Your task to perform on an android device: Open Youtube and go to the subscriptions tab Image 0: 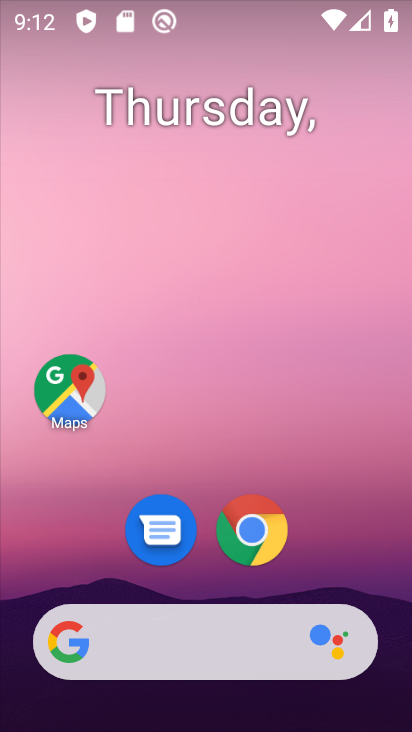
Step 0: drag from (344, 483) to (276, 17)
Your task to perform on an android device: Open Youtube and go to the subscriptions tab Image 1: 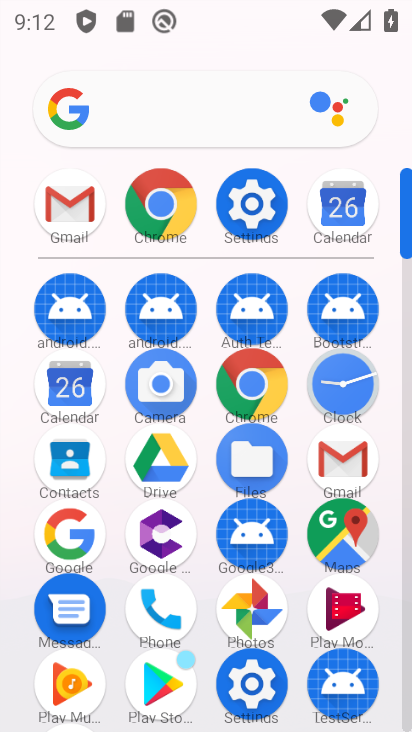
Step 1: drag from (3, 627) to (31, 279)
Your task to perform on an android device: Open Youtube and go to the subscriptions tab Image 2: 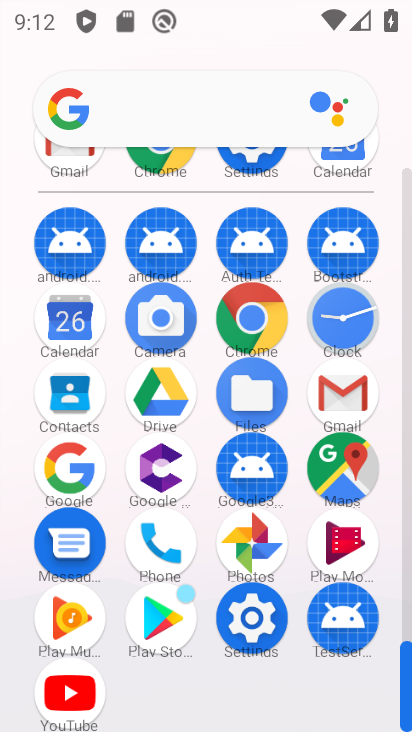
Step 2: click (71, 691)
Your task to perform on an android device: Open Youtube and go to the subscriptions tab Image 3: 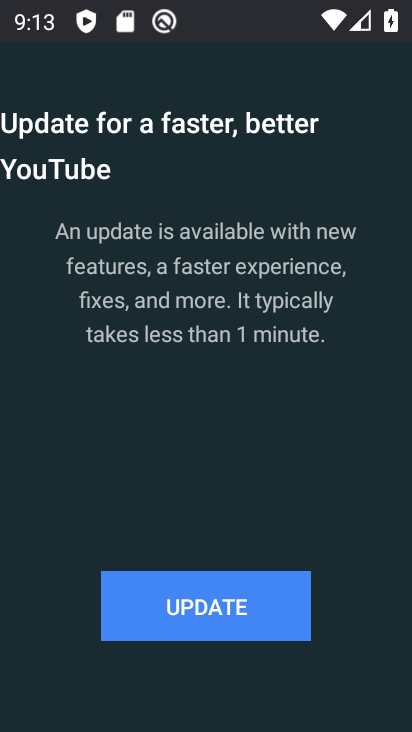
Step 3: click (179, 610)
Your task to perform on an android device: Open Youtube and go to the subscriptions tab Image 4: 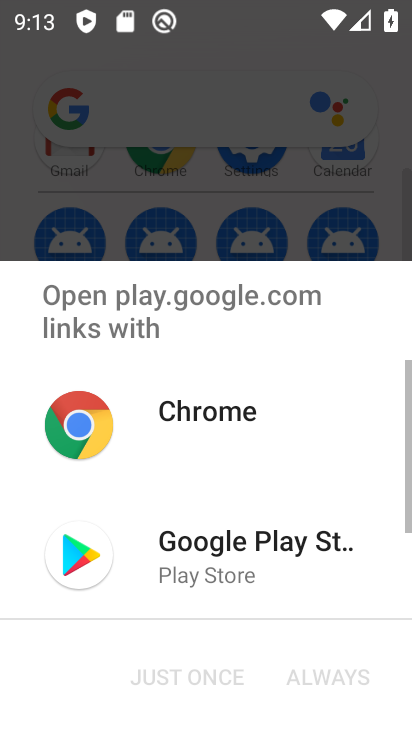
Step 4: click (231, 538)
Your task to perform on an android device: Open Youtube and go to the subscriptions tab Image 5: 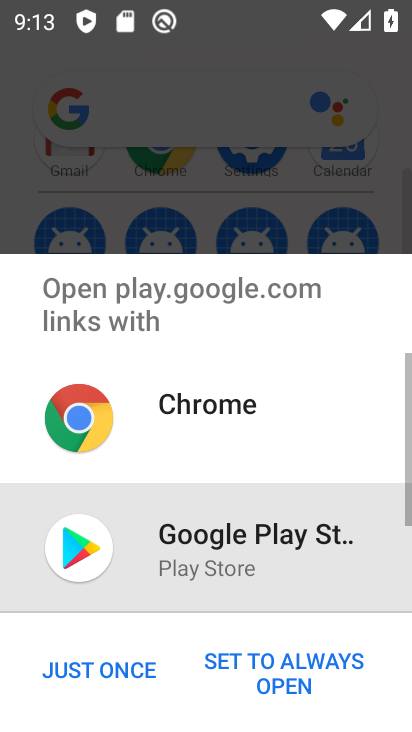
Step 5: click (94, 659)
Your task to perform on an android device: Open Youtube and go to the subscriptions tab Image 6: 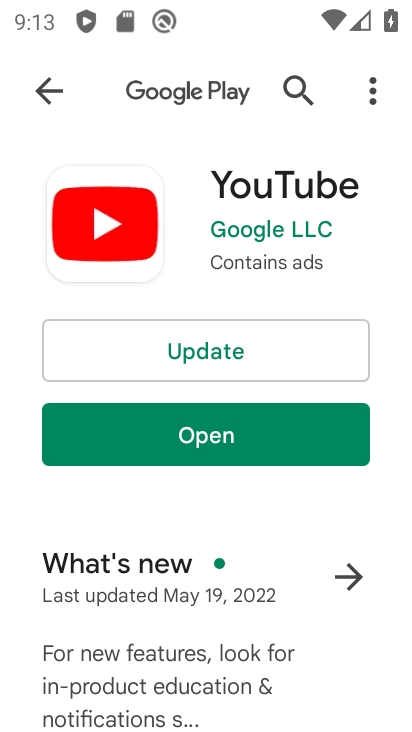
Step 6: click (213, 335)
Your task to perform on an android device: Open Youtube and go to the subscriptions tab Image 7: 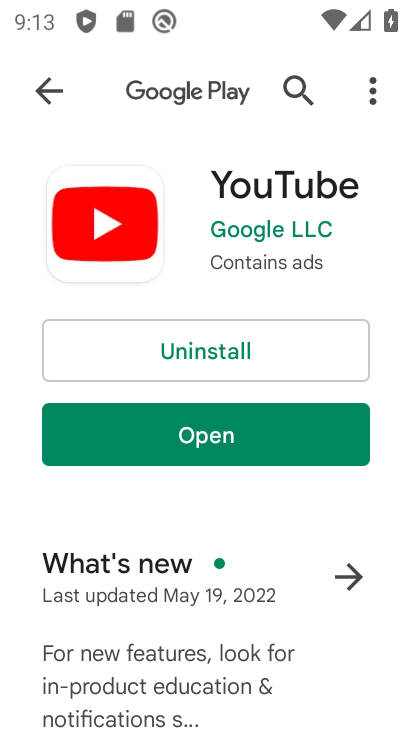
Step 7: click (239, 422)
Your task to perform on an android device: Open Youtube and go to the subscriptions tab Image 8: 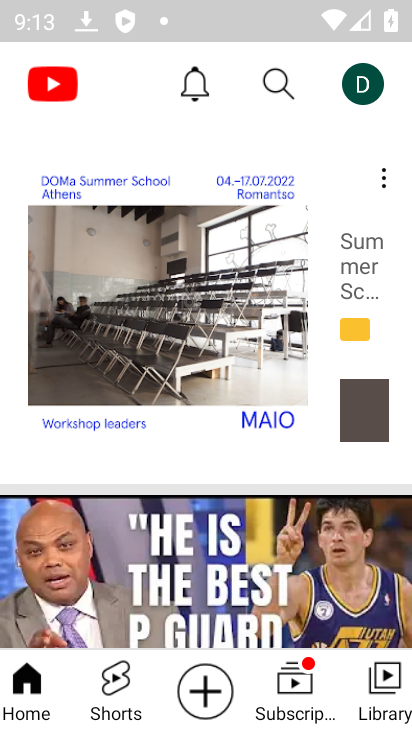
Step 8: click (295, 668)
Your task to perform on an android device: Open Youtube and go to the subscriptions tab Image 9: 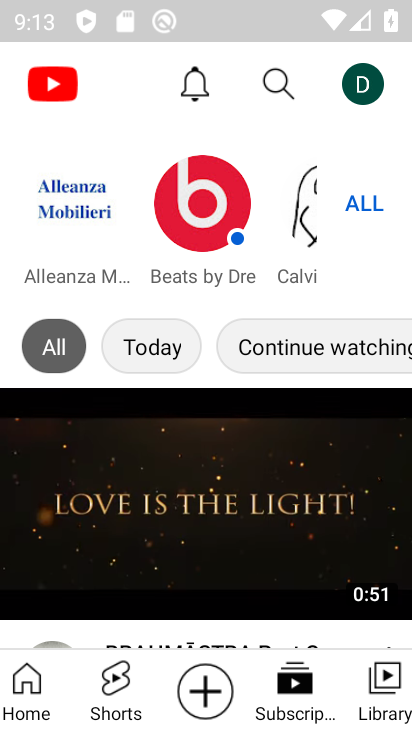
Step 9: task complete